Your task to perform on an android device: check data usage Image 0: 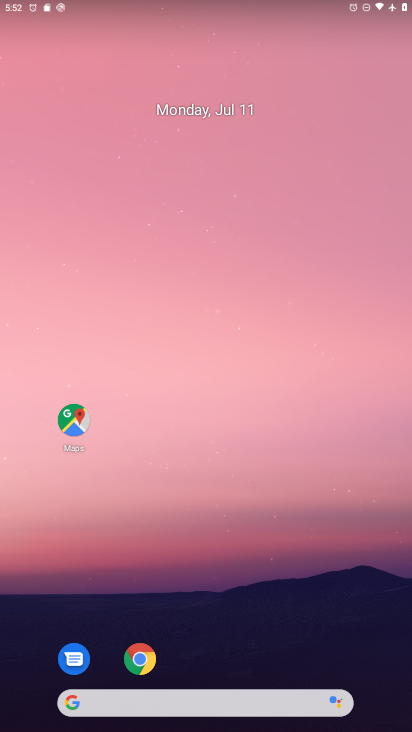
Step 0: drag from (369, 655) to (297, 55)
Your task to perform on an android device: check data usage Image 1: 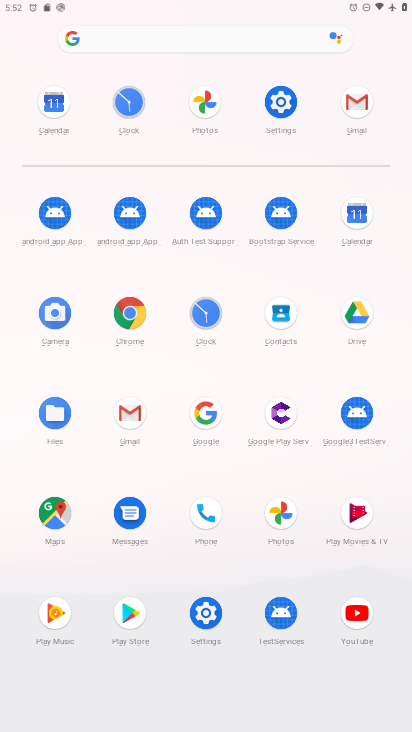
Step 1: click (207, 615)
Your task to perform on an android device: check data usage Image 2: 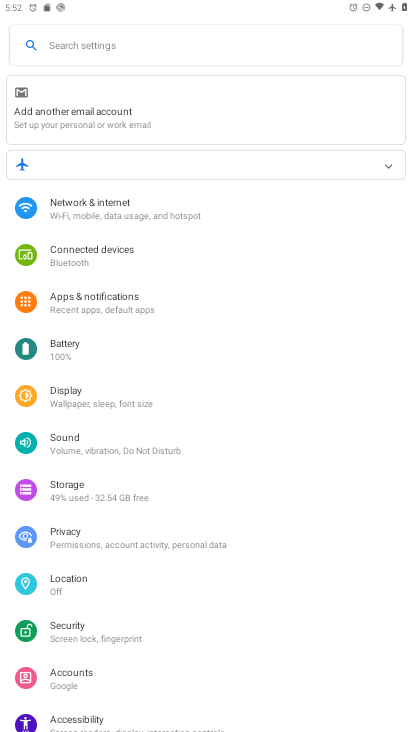
Step 2: click (92, 201)
Your task to perform on an android device: check data usage Image 3: 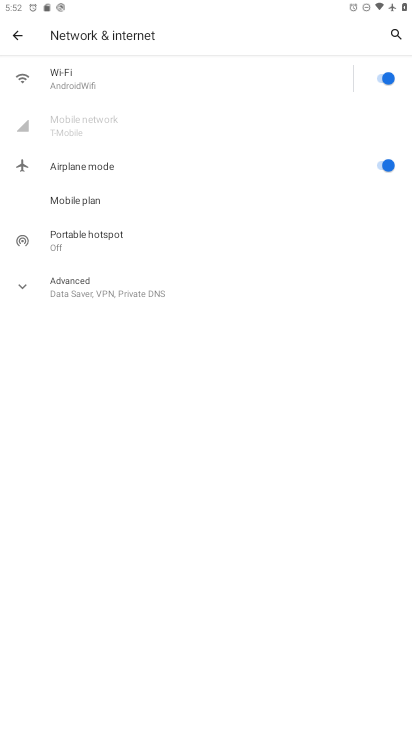
Step 3: task complete